Your task to perform on an android device: Is it going to rain tomorrow? Image 0: 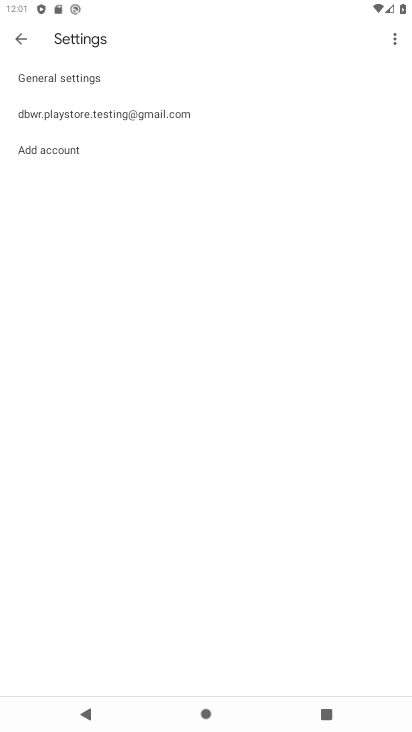
Step 0: press home button
Your task to perform on an android device: Is it going to rain tomorrow? Image 1: 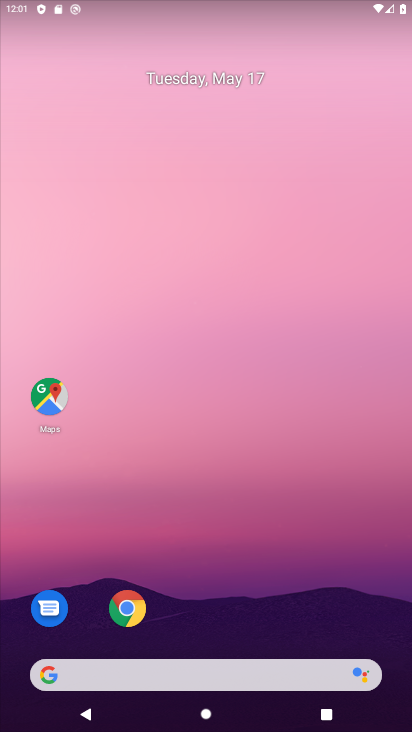
Step 1: click (118, 679)
Your task to perform on an android device: Is it going to rain tomorrow? Image 2: 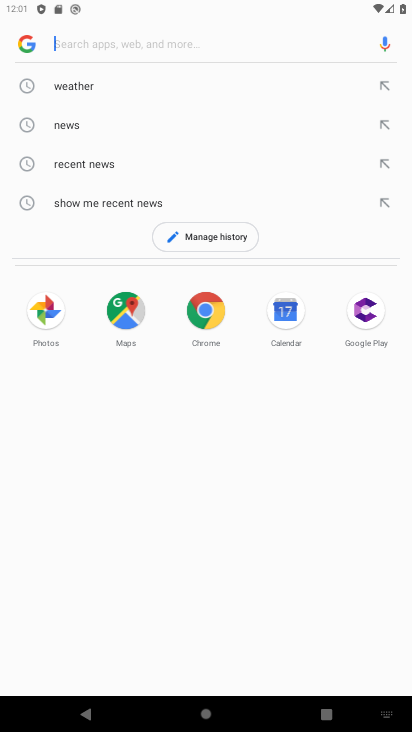
Step 2: click (78, 86)
Your task to perform on an android device: Is it going to rain tomorrow? Image 3: 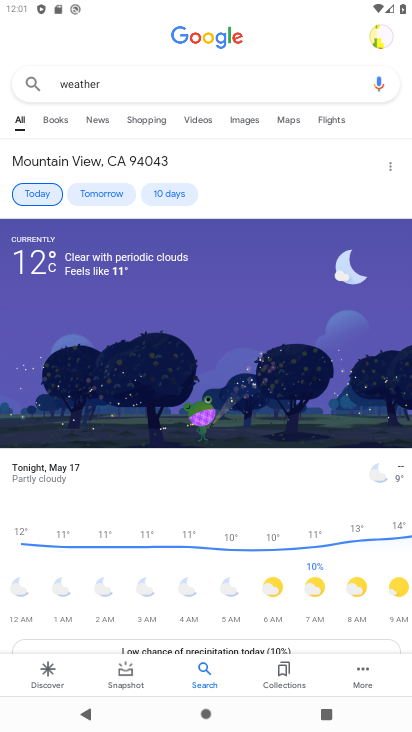
Step 3: task complete